Your task to perform on an android device: Do I have any events this weekend? Image 0: 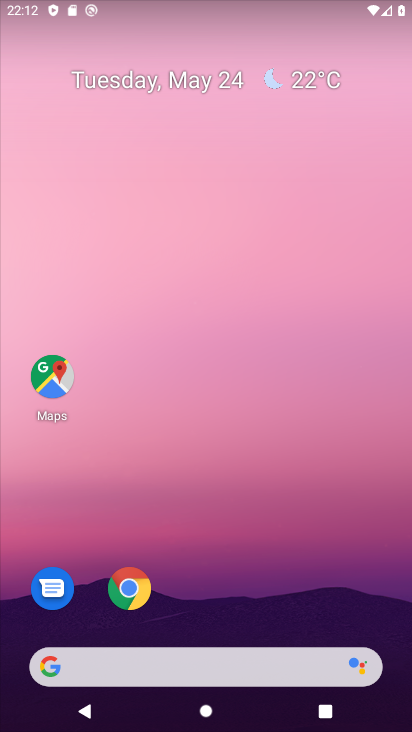
Step 0: click (220, 94)
Your task to perform on an android device: Do I have any events this weekend? Image 1: 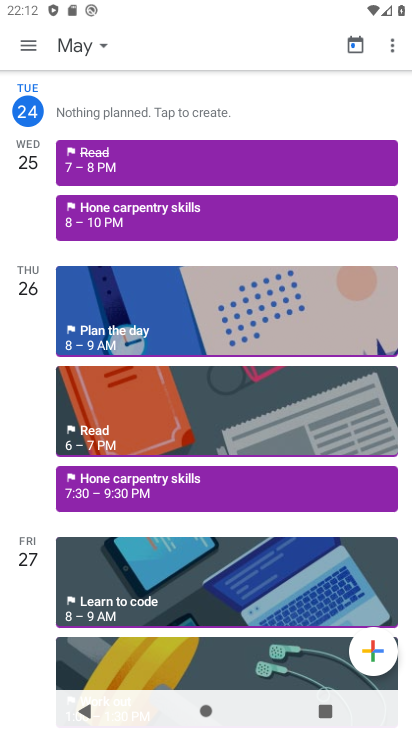
Step 1: click (88, 56)
Your task to perform on an android device: Do I have any events this weekend? Image 2: 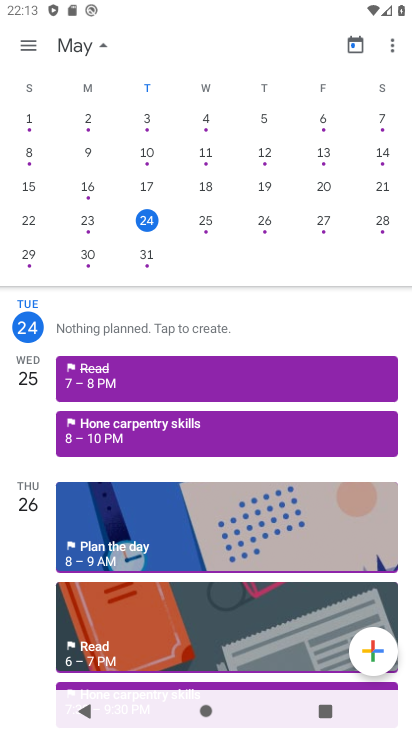
Step 2: click (383, 225)
Your task to perform on an android device: Do I have any events this weekend? Image 3: 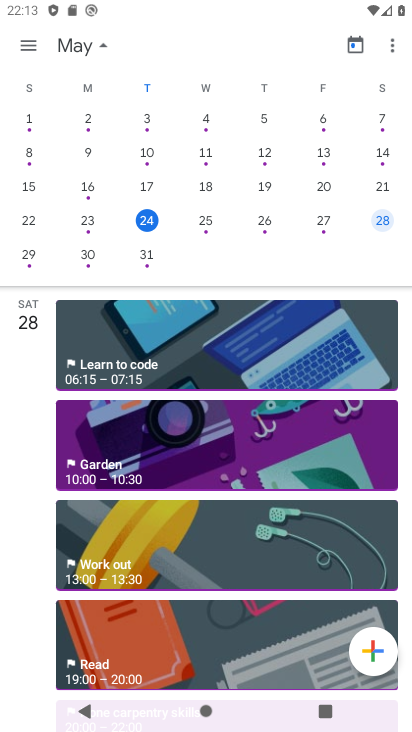
Step 3: click (22, 36)
Your task to perform on an android device: Do I have any events this weekend? Image 4: 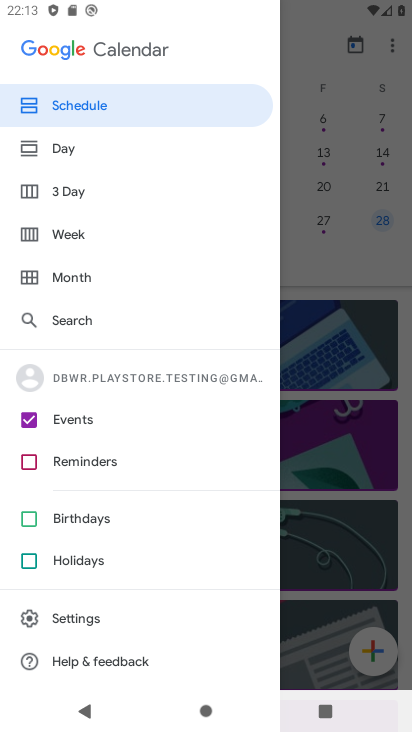
Step 4: click (341, 283)
Your task to perform on an android device: Do I have any events this weekend? Image 5: 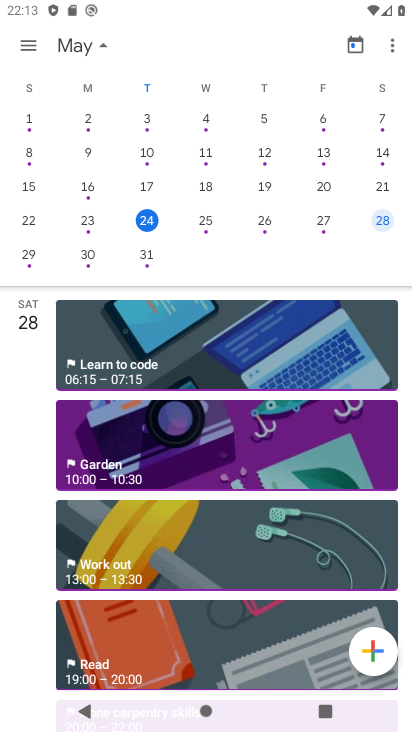
Step 5: click (335, 297)
Your task to perform on an android device: Do I have any events this weekend? Image 6: 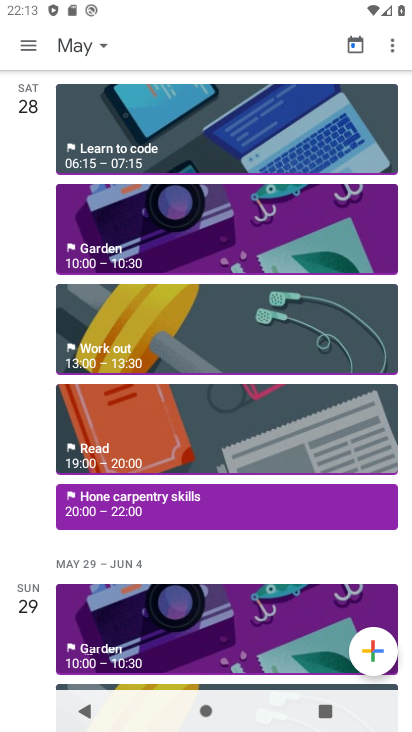
Step 6: task complete